Your task to perform on an android device: check google app version Image 0: 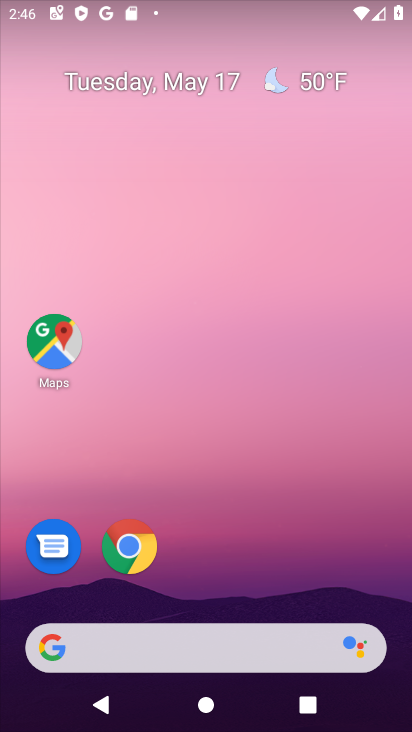
Step 0: click (184, 641)
Your task to perform on an android device: check google app version Image 1: 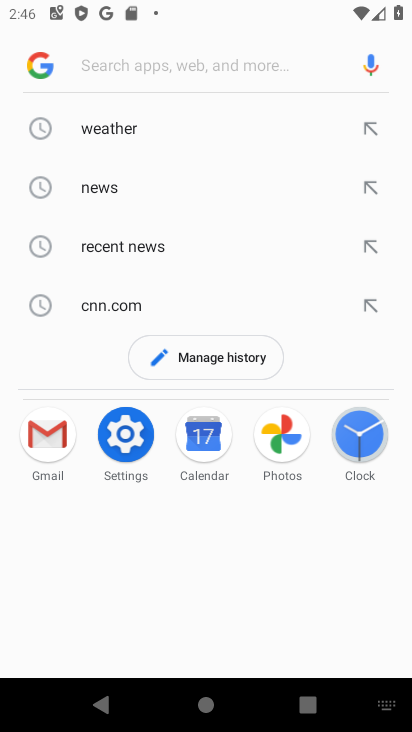
Step 1: click (35, 50)
Your task to perform on an android device: check google app version Image 2: 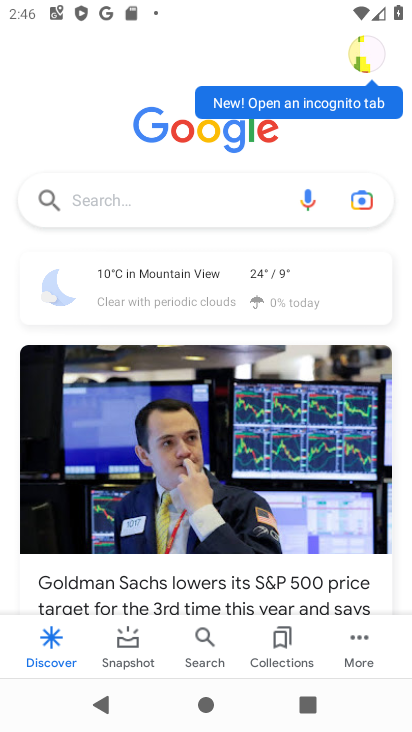
Step 2: click (360, 643)
Your task to perform on an android device: check google app version Image 3: 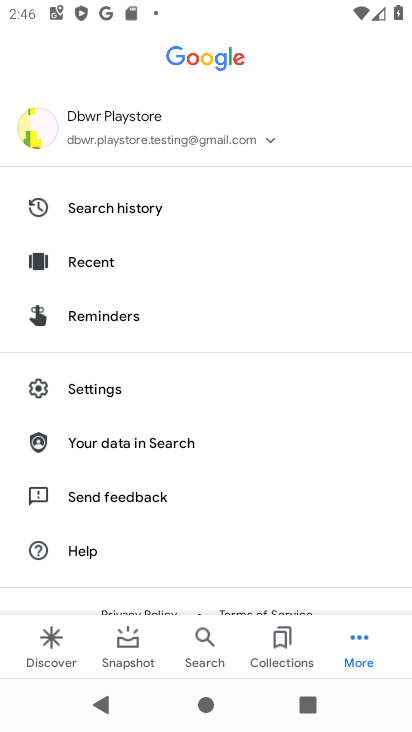
Step 3: click (107, 386)
Your task to perform on an android device: check google app version Image 4: 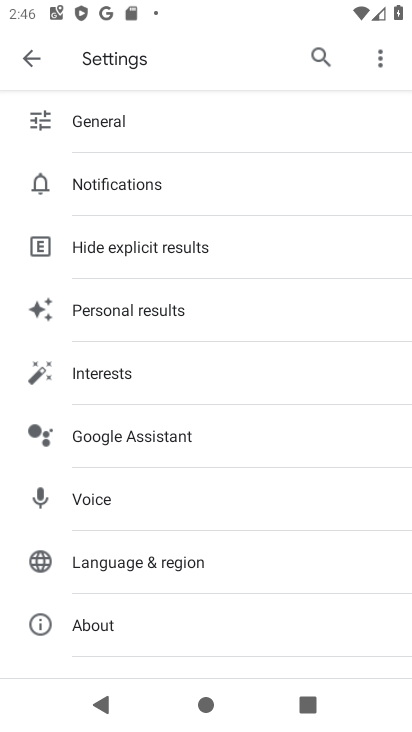
Step 4: drag from (137, 540) to (160, 353)
Your task to perform on an android device: check google app version Image 5: 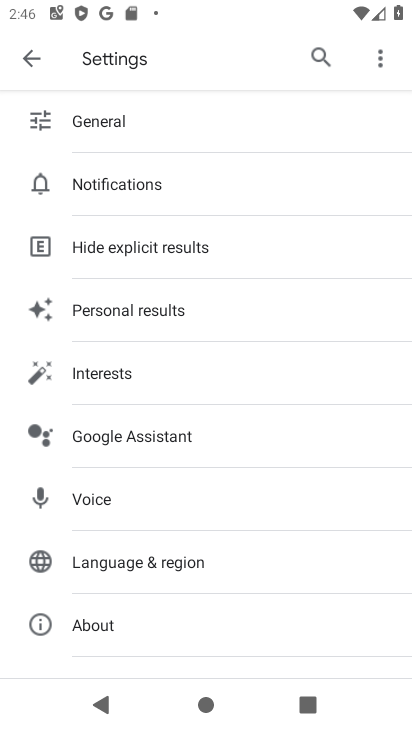
Step 5: click (94, 618)
Your task to perform on an android device: check google app version Image 6: 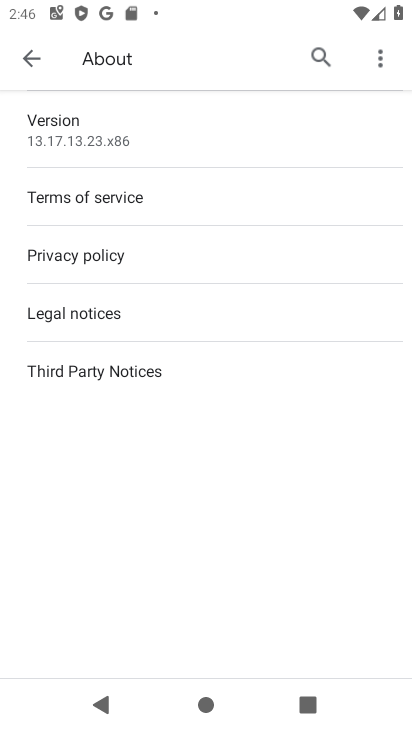
Step 6: task complete